Your task to perform on an android device: toggle wifi Image 0: 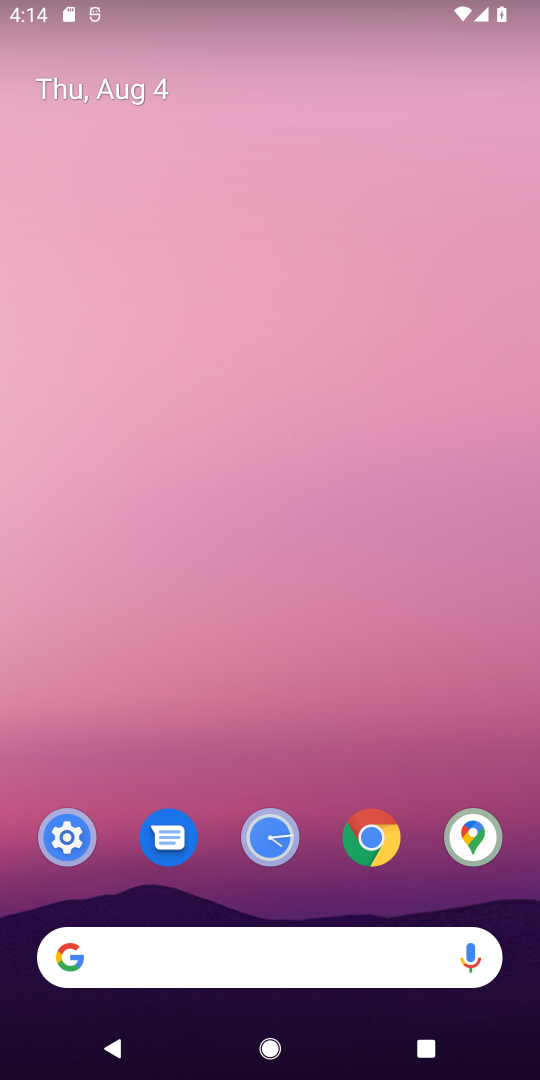
Step 0: drag from (254, 14) to (257, 590)
Your task to perform on an android device: toggle wifi Image 1: 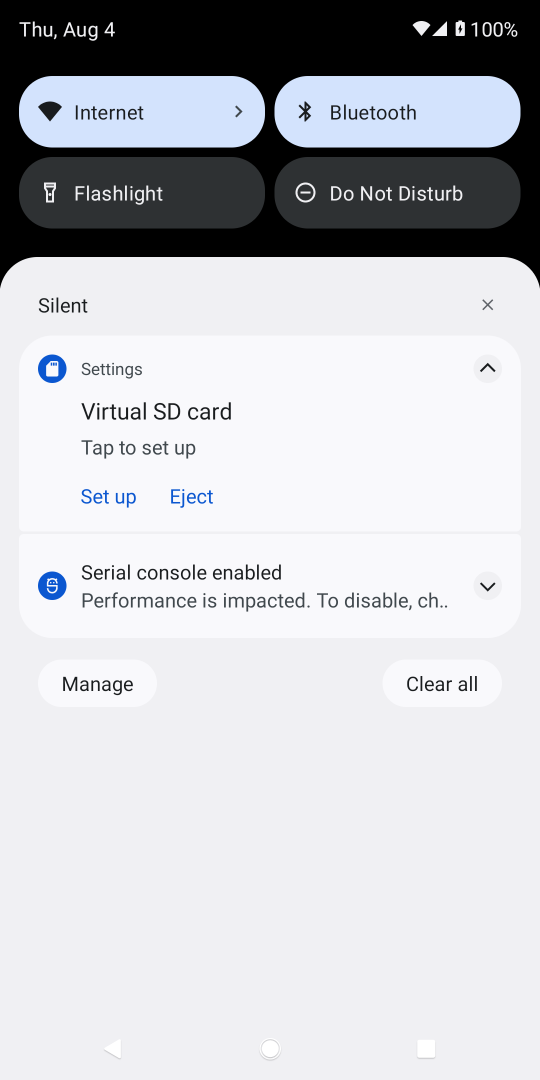
Step 1: drag from (255, 268) to (283, 900)
Your task to perform on an android device: toggle wifi Image 2: 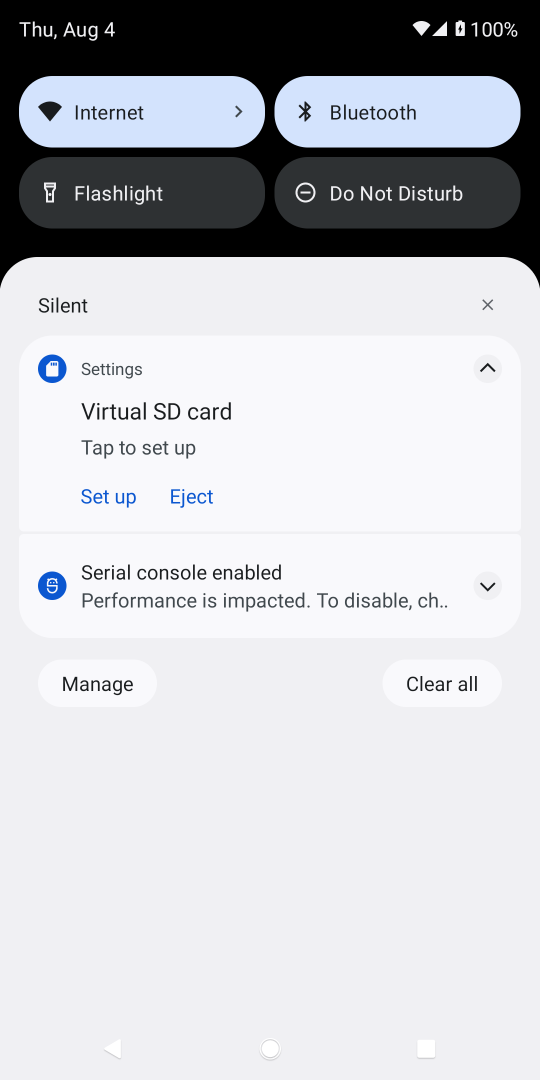
Step 2: drag from (268, 1035) to (295, 233)
Your task to perform on an android device: toggle wifi Image 3: 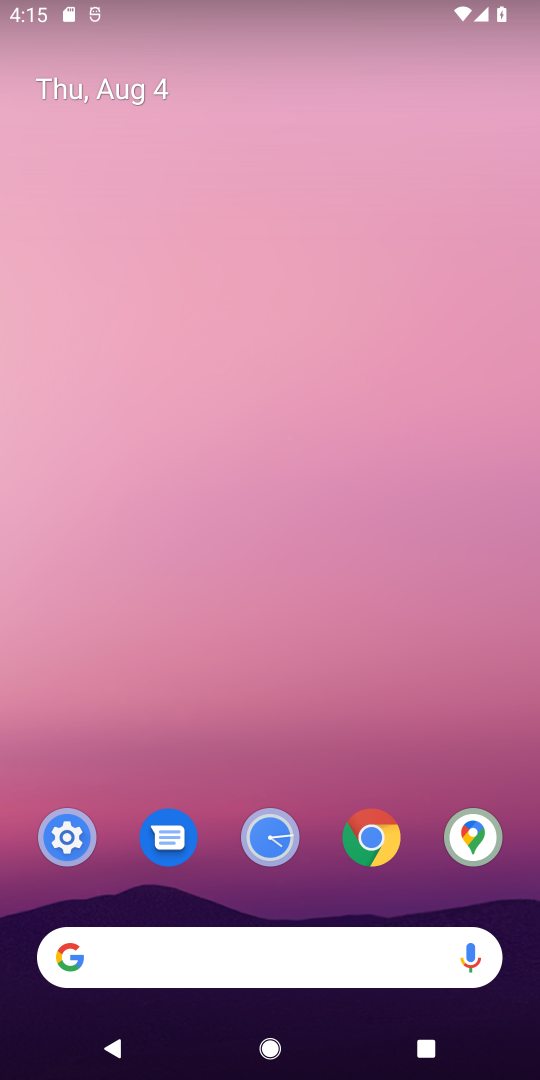
Step 3: drag from (300, 773) to (377, 14)
Your task to perform on an android device: toggle wifi Image 4: 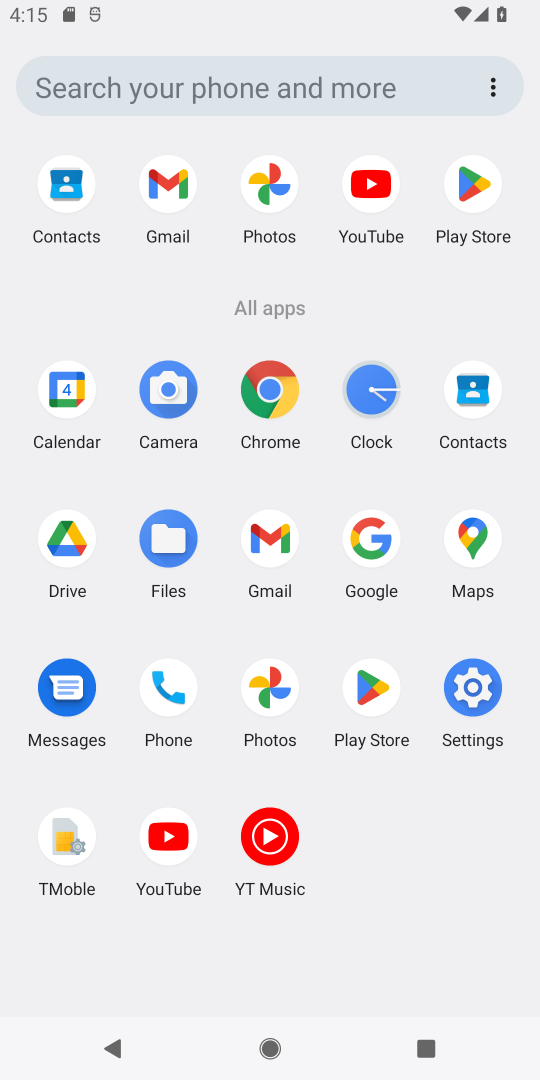
Step 4: click (465, 678)
Your task to perform on an android device: toggle wifi Image 5: 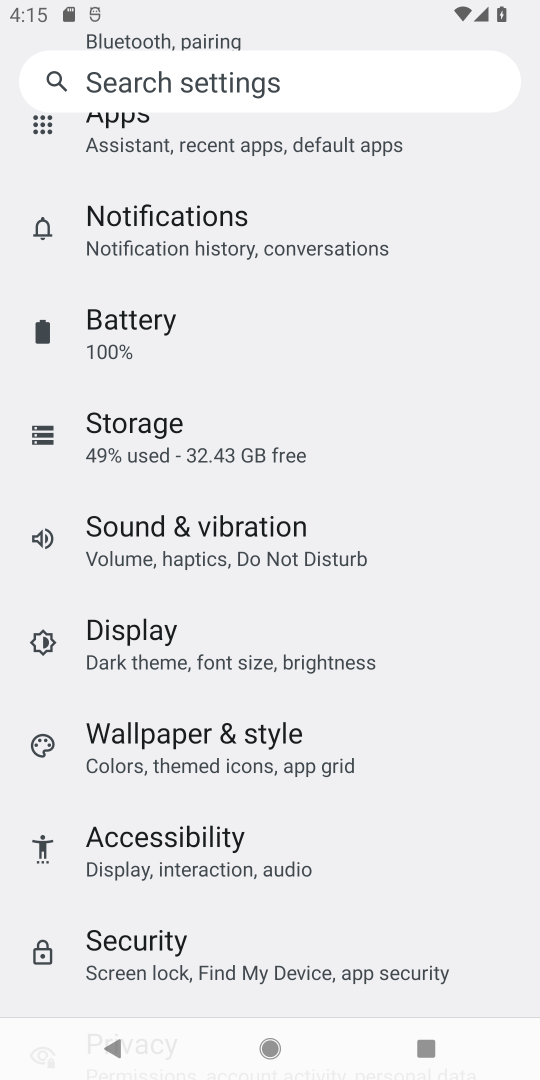
Step 5: drag from (262, 189) to (318, 1074)
Your task to perform on an android device: toggle wifi Image 6: 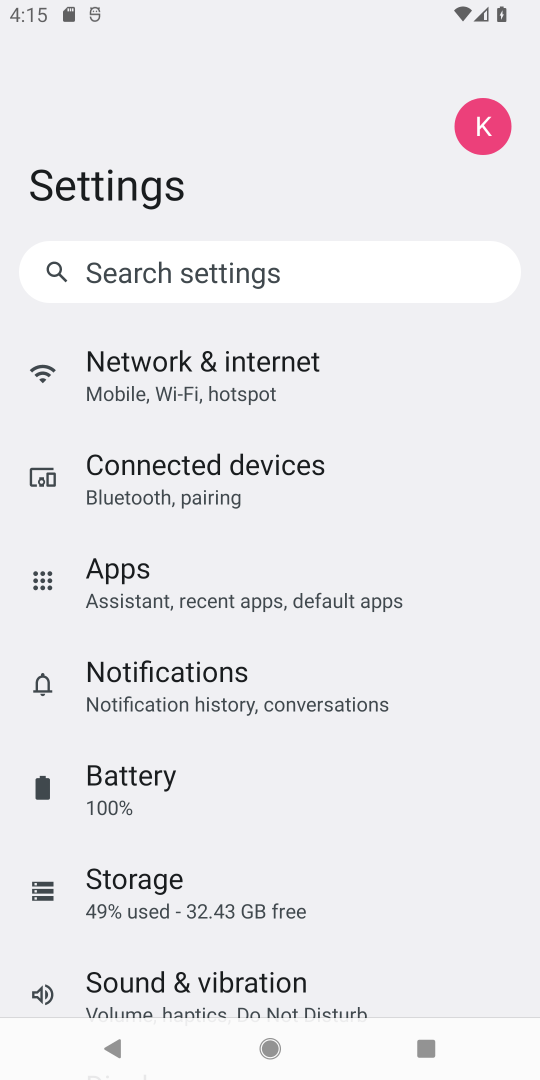
Step 6: click (193, 396)
Your task to perform on an android device: toggle wifi Image 7: 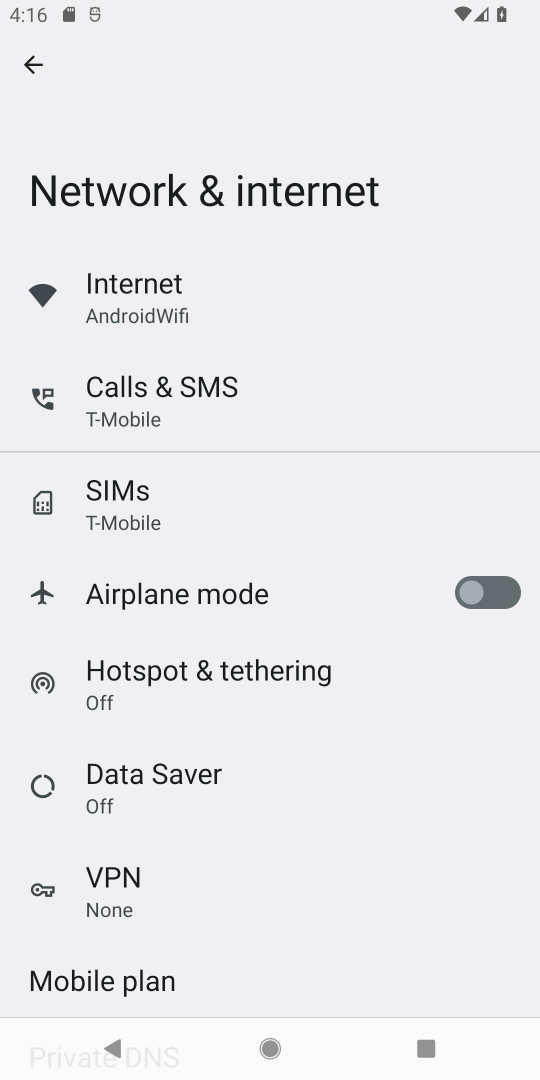
Step 7: click (137, 298)
Your task to perform on an android device: toggle wifi Image 8: 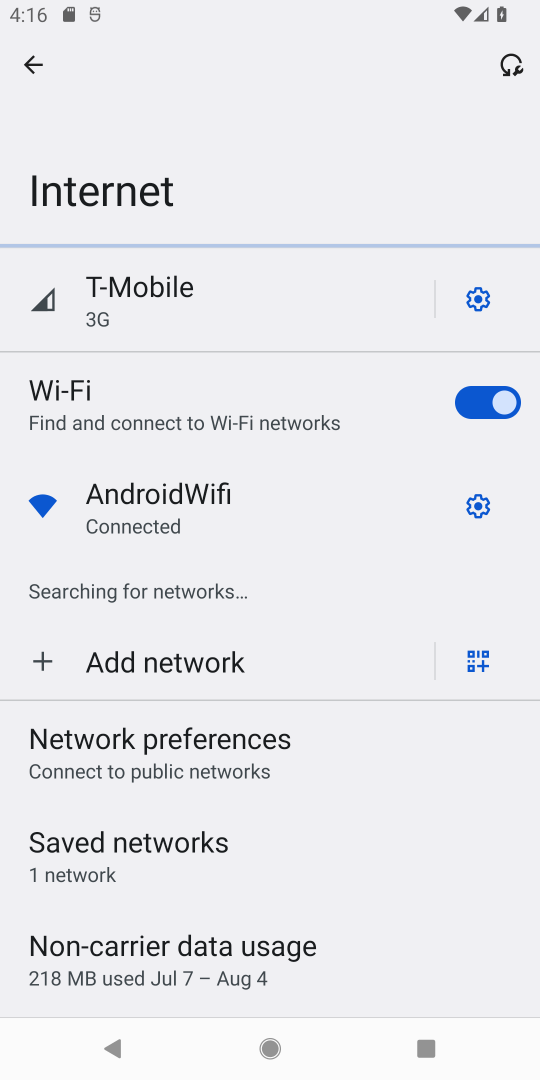
Step 8: task complete